Your task to perform on an android device: Open privacy settings Image 0: 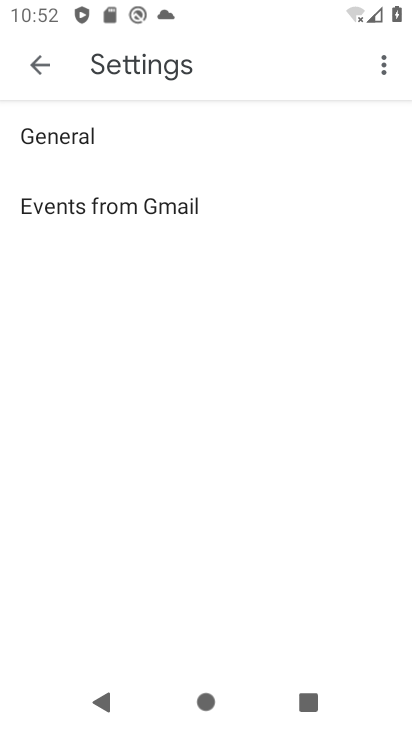
Step 0: press home button
Your task to perform on an android device: Open privacy settings Image 1: 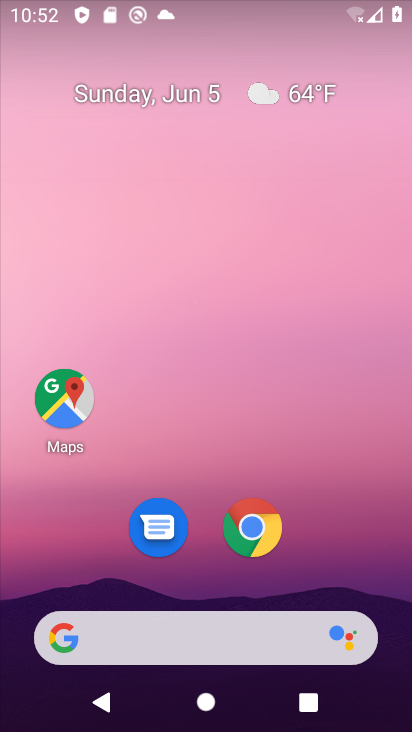
Step 1: drag from (342, 556) to (293, 44)
Your task to perform on an android device: Open privacy settings Image 2: 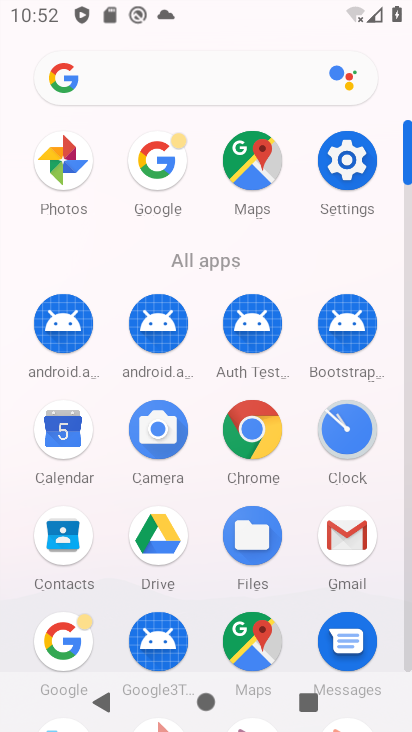
Step 2: click (341, 160)
Your task to perform on an android device: Open privacy settings Image 3: 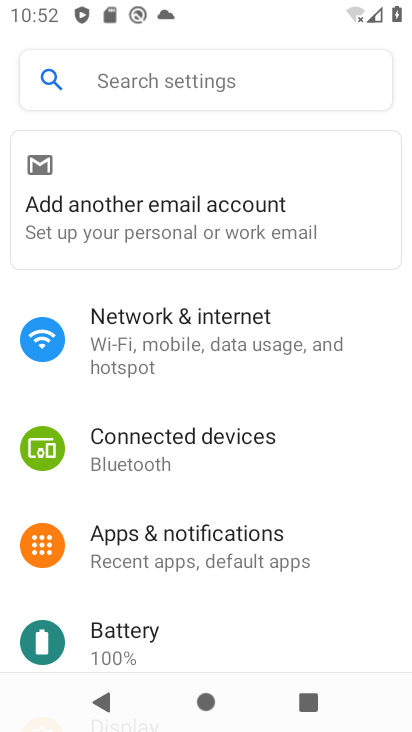
Step 3: drag from (239, 611) to (281, 213)
Your task to perform on an android device: Open privacy settings Image 4: 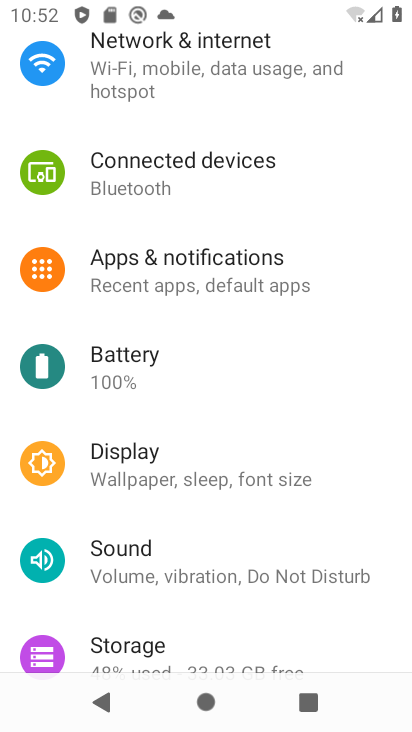
Step 4: drag from (221, 632) to (258, 197)
Your task to perform on an android device: Open privacy settings Image 5: 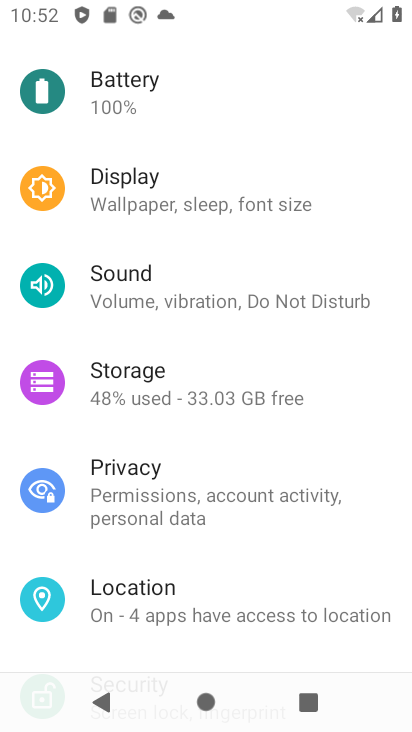
Step 5: click (145, 498)
Your task to perform on an android device: Open privacy settings Image 6: 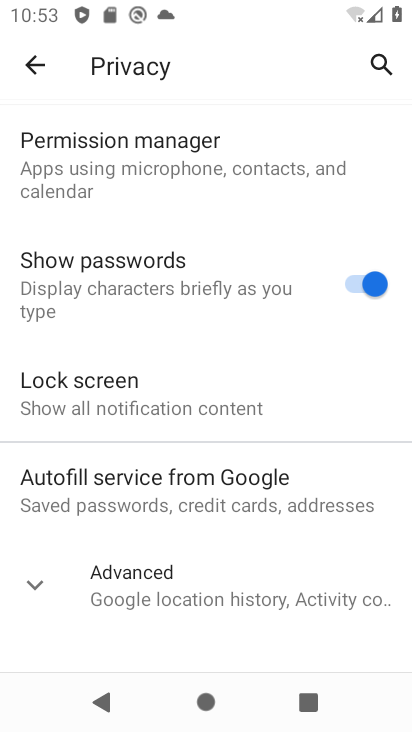
Step 6: task complete